Your task to perform on an android device: toggle airplane mode Image 0: 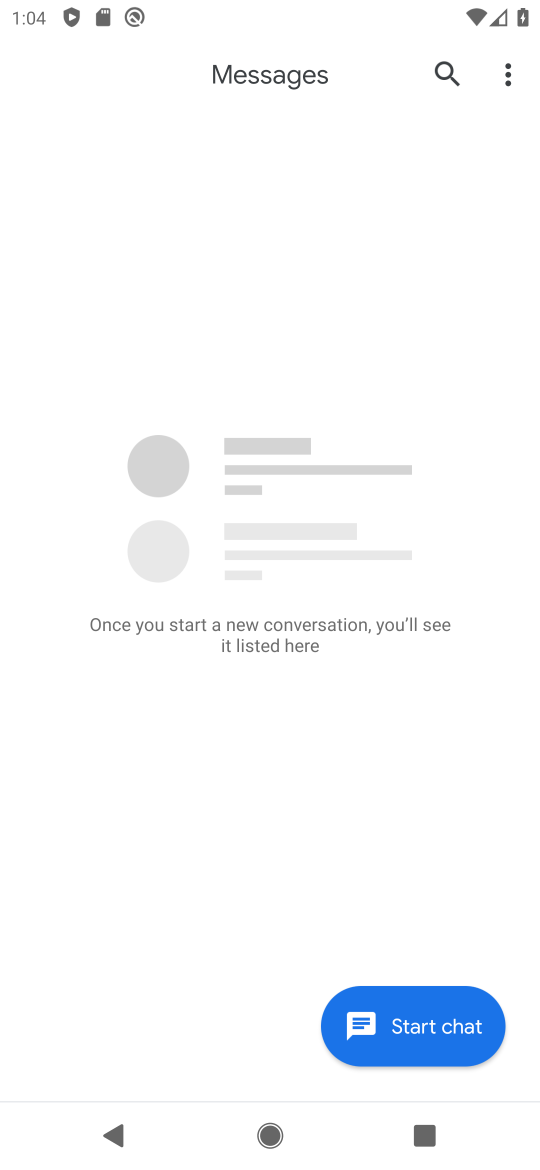
Step 0: press home button
Your task to perform on an android device: toggle airplane mode Image 1: 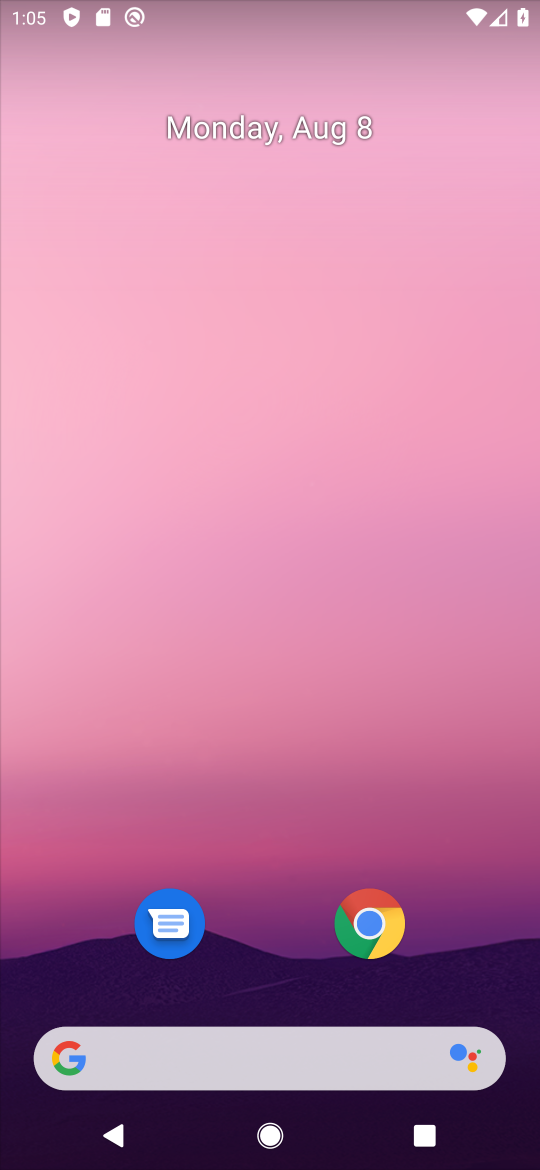
Step 1: drag from (267, 848) to (468, 17)
Your task to perform on an android device: toggle airplane mode Image 2: 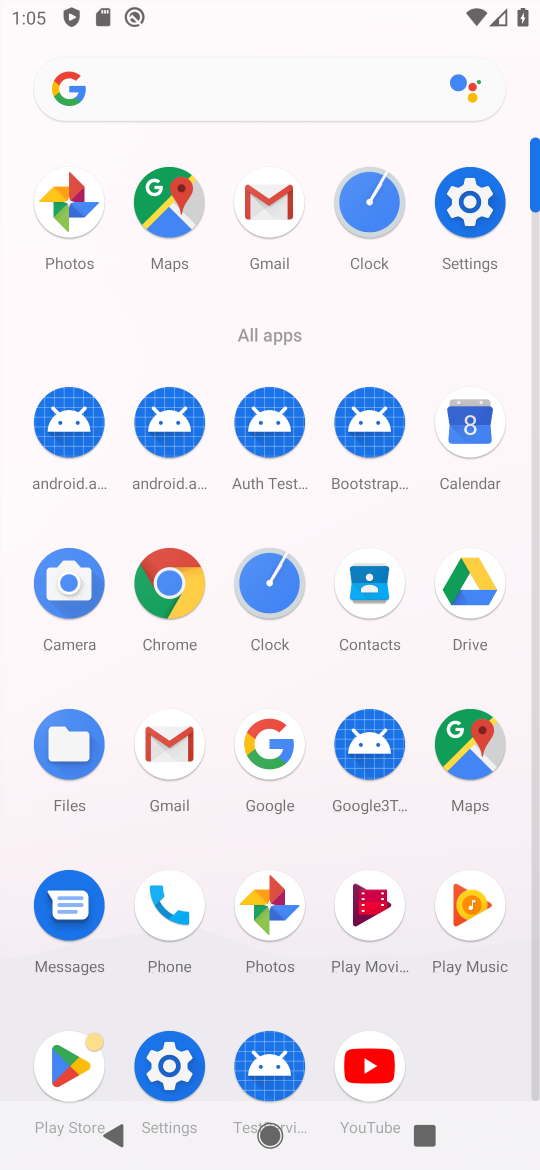
Step 2: click (483, 210)
Your task to perform on an android device: toggle airplane mode Image 3: 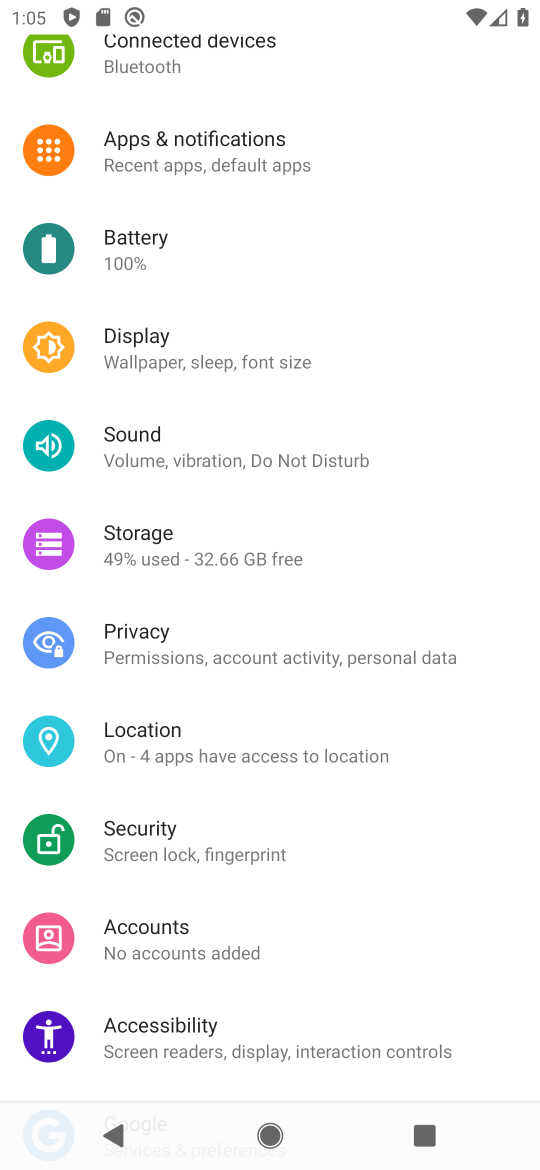
Step 3: task complete